Your task to perform on an android device: find photos in the google photos app Image 0: 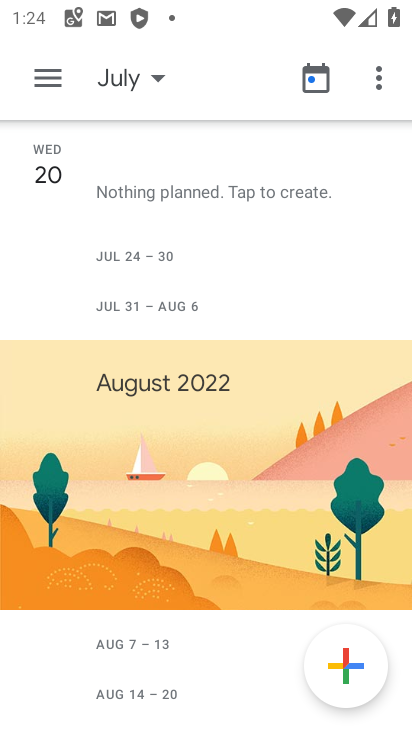
Step 0: press home button
Your task to perform on an android device: find photos in the google photos app Image 1: 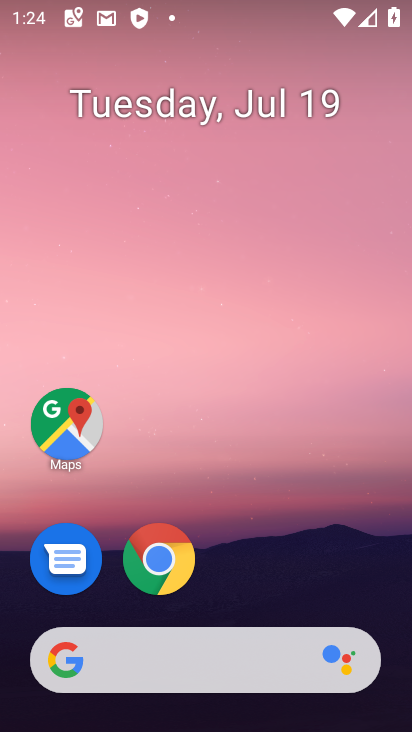
Step 1: drag from (187, 573) to (188, 81)
Your task to perform on an android device: find photos in the google photos app Image 2: 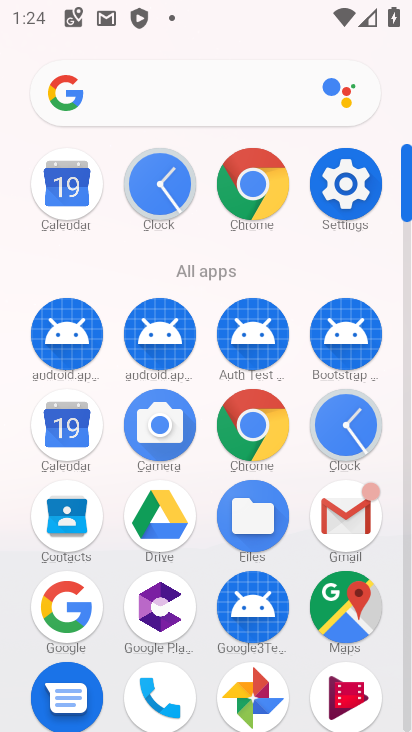
Step 2: click (245, 696)
Your task to perform on an android device: find photos in the google photos app Image 3: 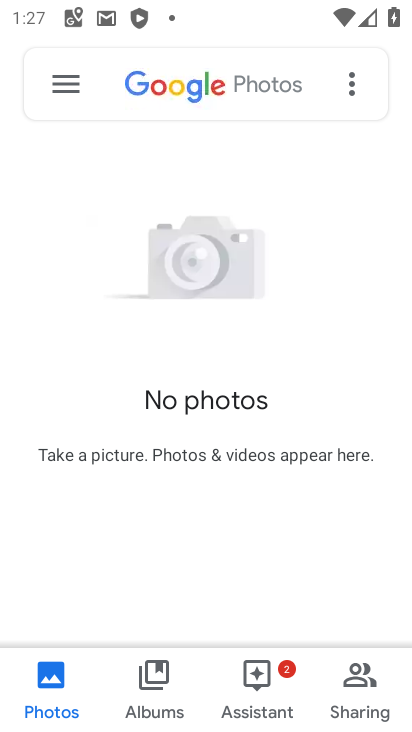
Step 3: task complete